Your task to perform on an android device: find photos in the google photos app Image 0: 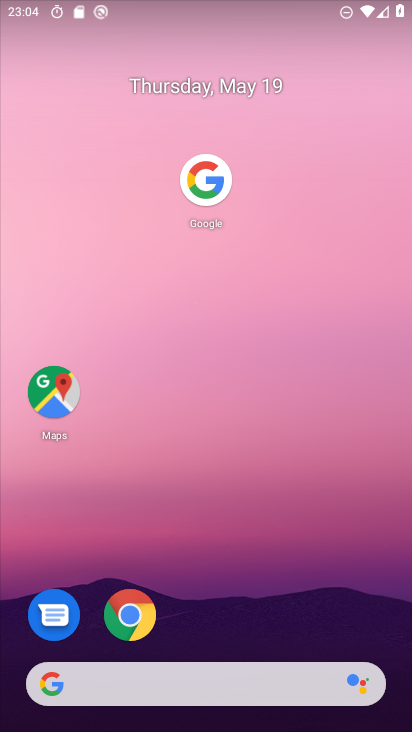
Step 0: drag from (252, 617) to (318, 105)
Your task to perform on an android device: find photos in the google photos app Image 1: 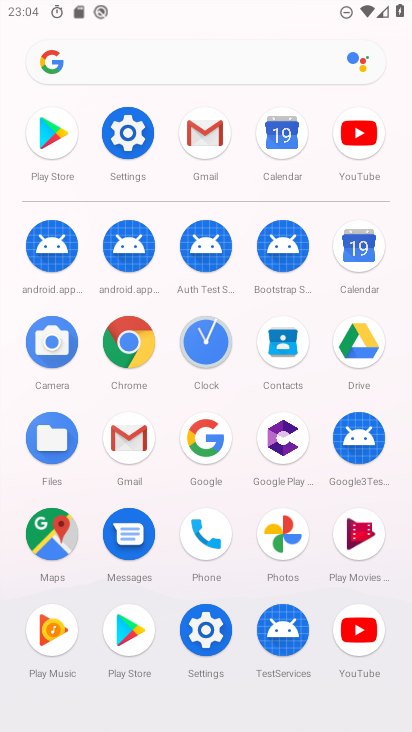
Step 1: click (285, 540)
Your task to perform on an android device: find photos in the google photos app Image 2: 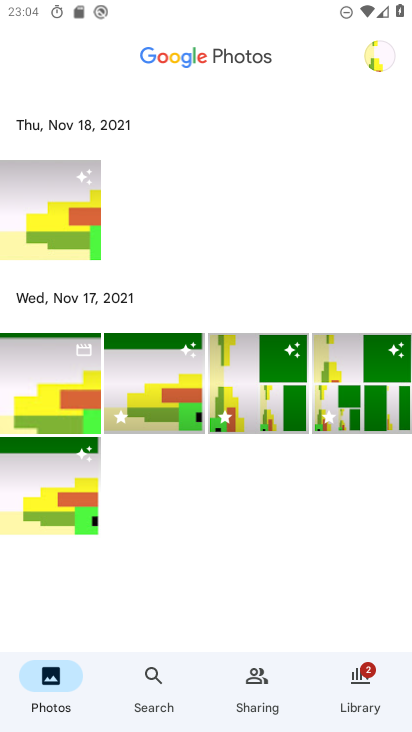
Step 2: task complete